Your task to perform on an android device: Open Google Chrome Image 0: 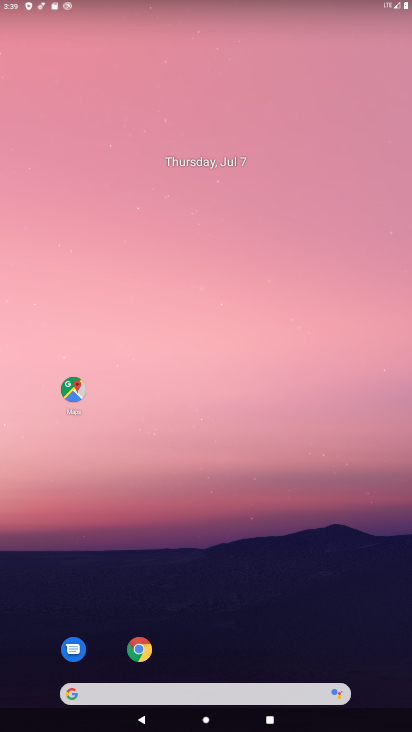
Step 0: click (136, 648)
Your task to perform on an android device: Open Google Chrome Image 1: 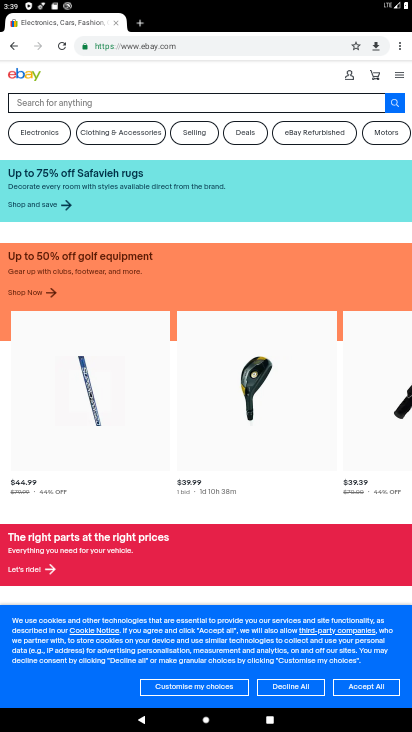
Step 1: task complete